Your task to perform on an android device: open sync settings in chrome Image 0: 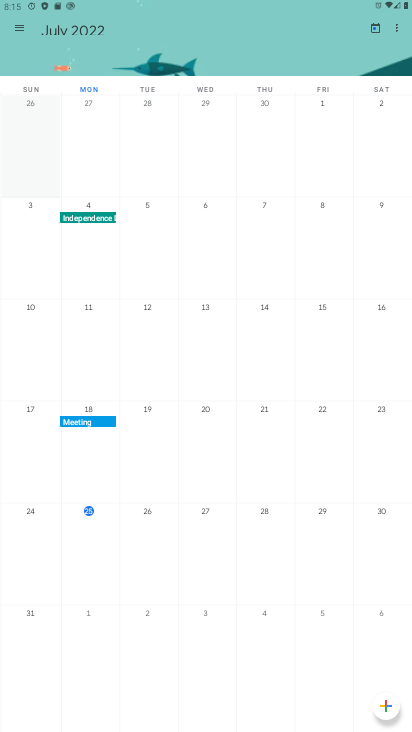
Step 0: press home button
Your task to perform on an android device: open sync settings in chrome Image 1: 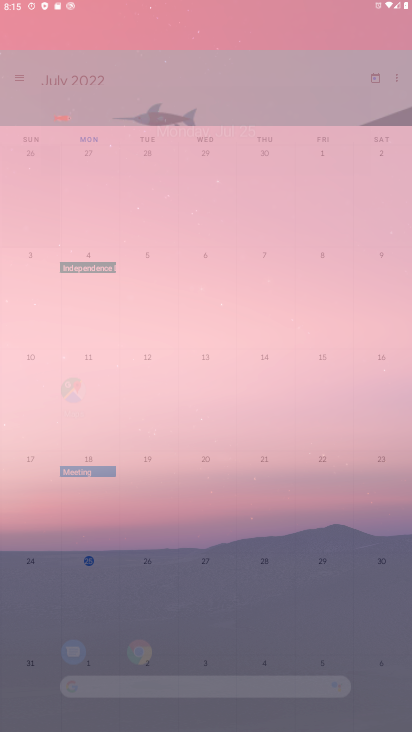
Step 1: drag from (385, 712) to (264, 26)
Your task to perform on an android device: open sync settings in chrome Image 2: 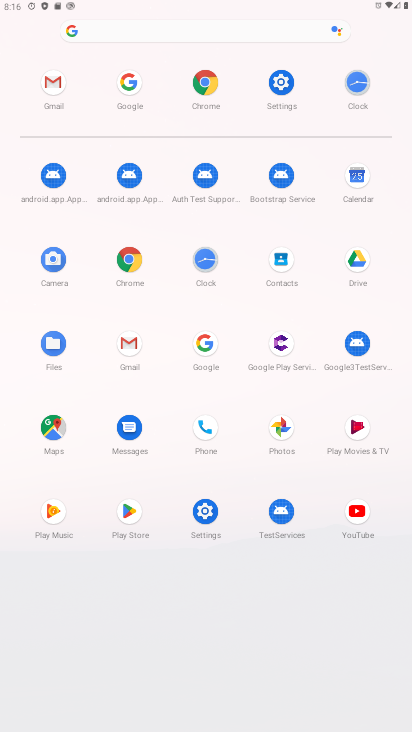
Step 2: click (129, 269)
Your task to perform on an android device: open sync settings in chrome Image 3: 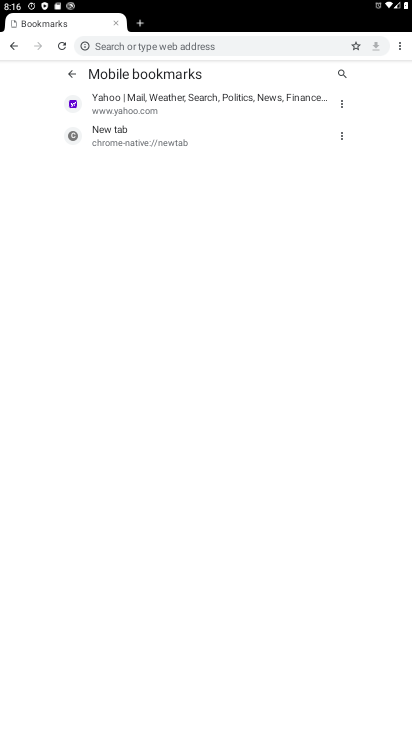
Step 3: click (399, 45)
Your task to perform on an android device: open sync settings in chrome Image 4: 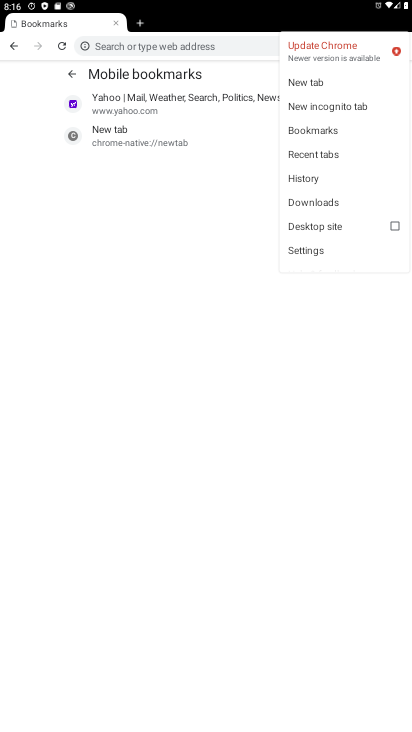
Step 4: click (314, 252)
Your task to perform on an android device: open sync settings in chrome Image 5: 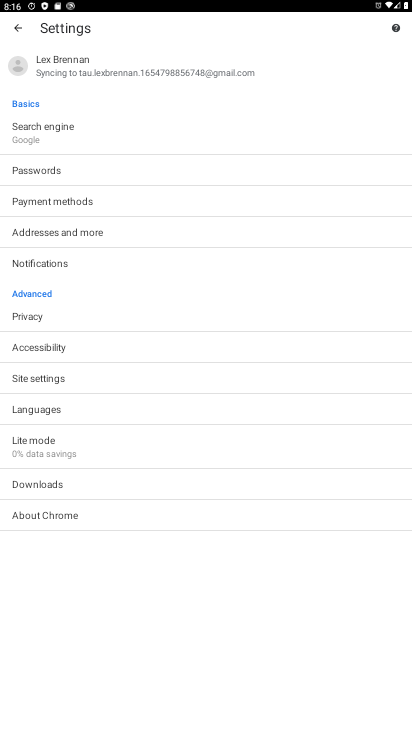
Step 5: click (44, 377)
Your task to perform on an android device: open sync settings in chrome Image 6: 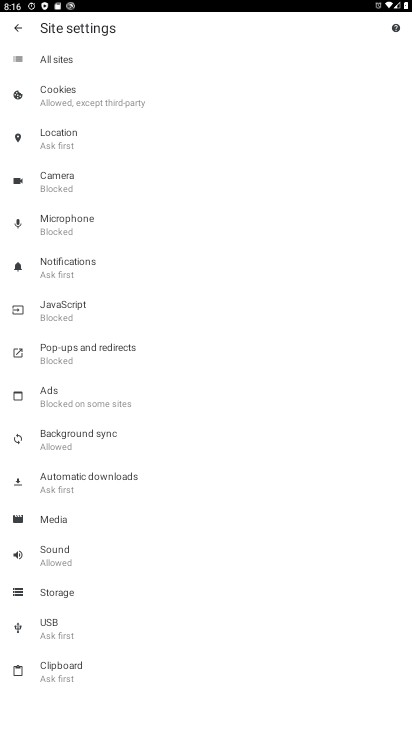
Step 6: click (99, 440)
Your task to perform on an android device: open sync settings in chrome Image 7: 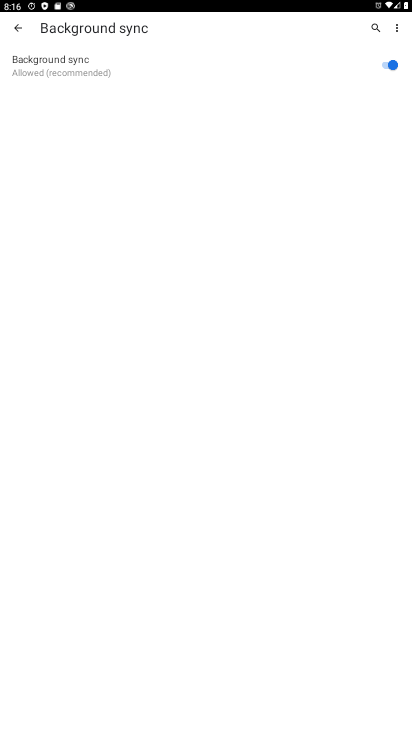
Step 7: task complete